Your task to perform on an android device: Open the web browser Image 0: 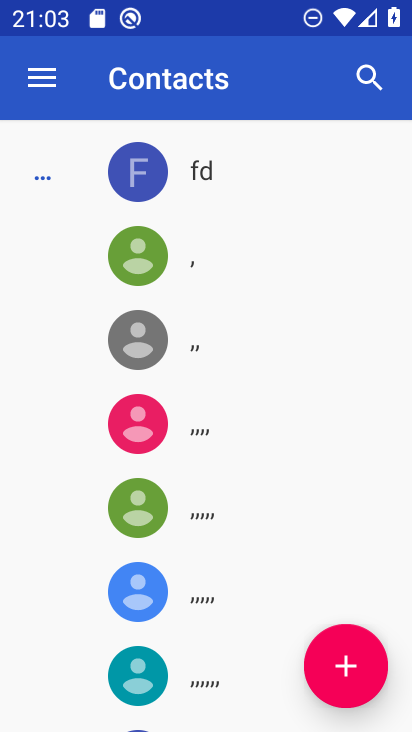
Step 0: press home button
Your task to perform on an android device: Open the web browser Image 1: 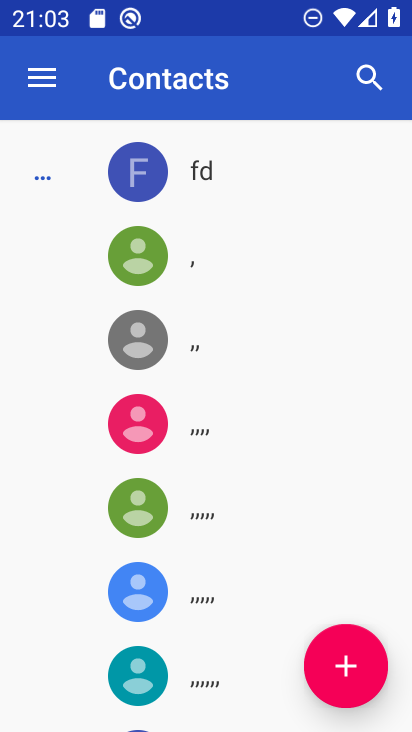
Step 1: press home button
Your task to perform on an android device: Open the web browser Image 2: 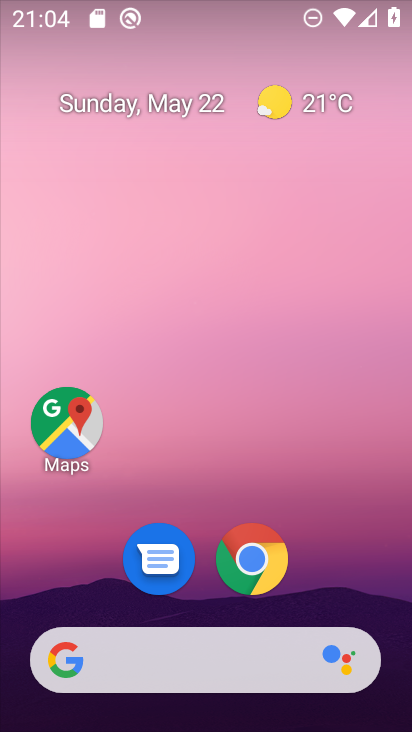
Step 2: drag from (245, 702) to (293, 239)
Your task to perform on an android device: Open the web browser Image 3: 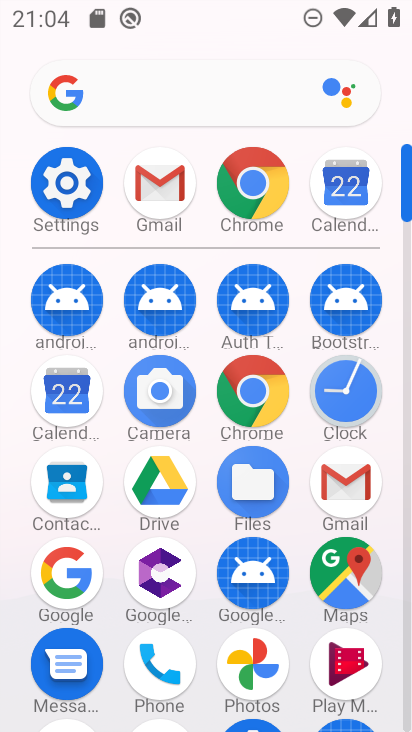
Step 3: click (252, 204)
Your task to perform on an android device: Open the web browser Image 4: 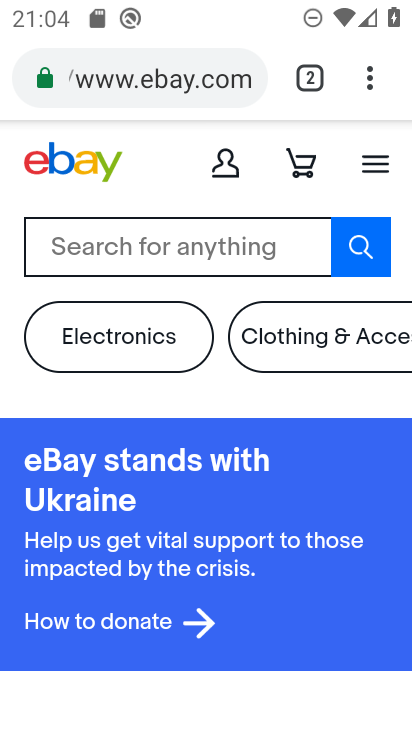
Step 4: click (153, 100)
Your task to perform on an android device: Open the web browser Image 5: 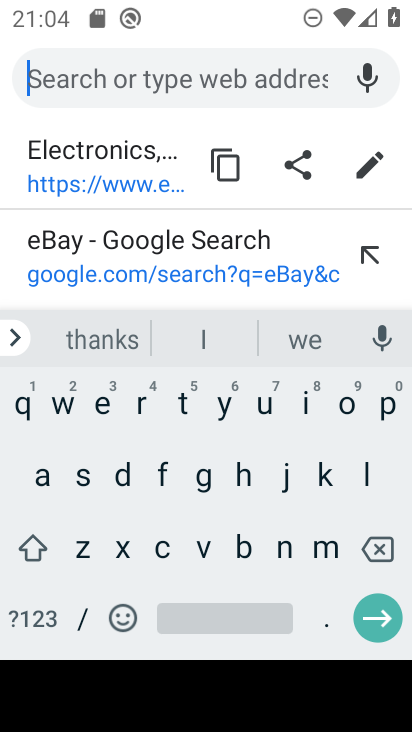
Step 5: task complete